Your task to perform on an android device: turn on location history Image 0: 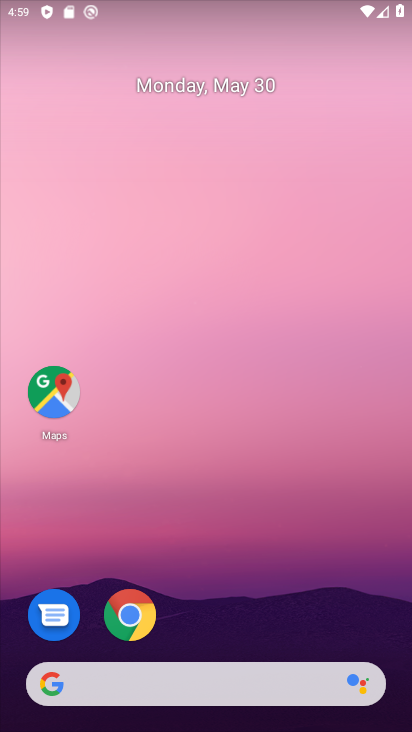
Step 0: drag from (192, 640) to (264, 3)
Your task to perform on an android device: turn on location history Image 1: 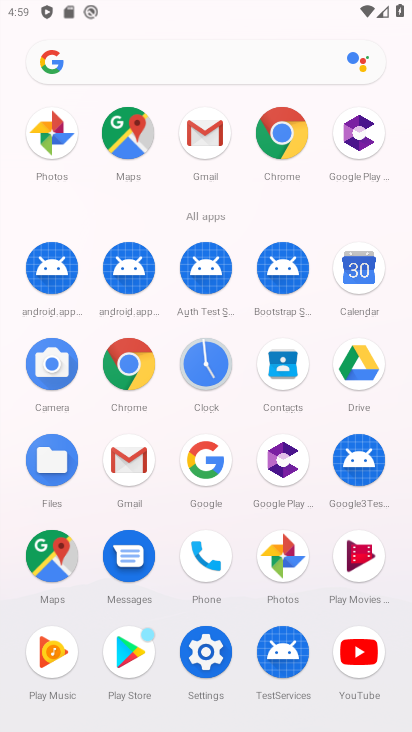
Step 1: click (205, 657)
Your task to perform on an android device: turn on location history Image 2: 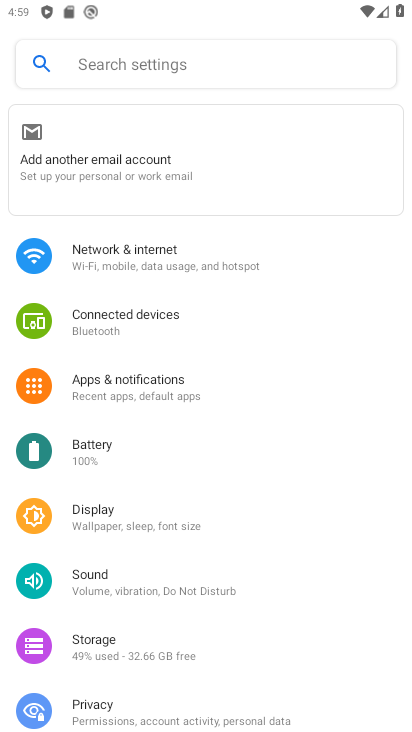
Step 2: drag from (205, 657) to (284, 199)
Your task to perform on an android device: turn on location history Image 3: 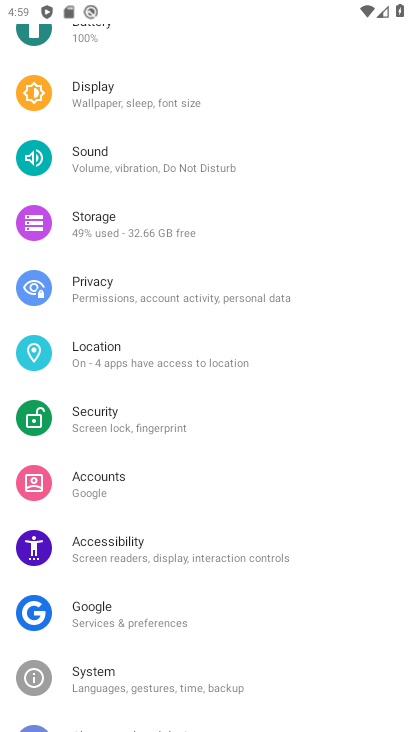
Step 3: click (116, 368)
Your task to perform on an android device: turn on location history Image 4: 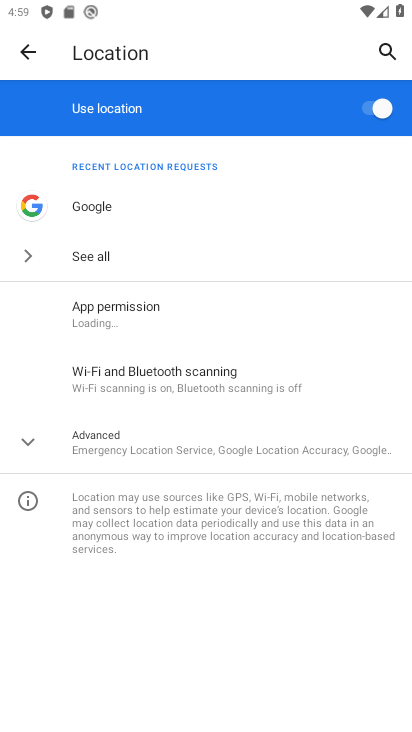
Step 4: task complete